Your task to perform on an android device: check data usage Image 0: 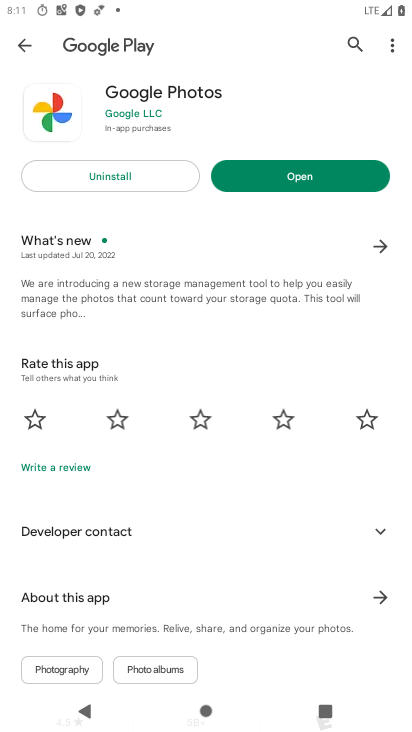
Step 0: drag from (247, 614) to (308, 206)
Your task to perform on an android device: check data usage Image 1: 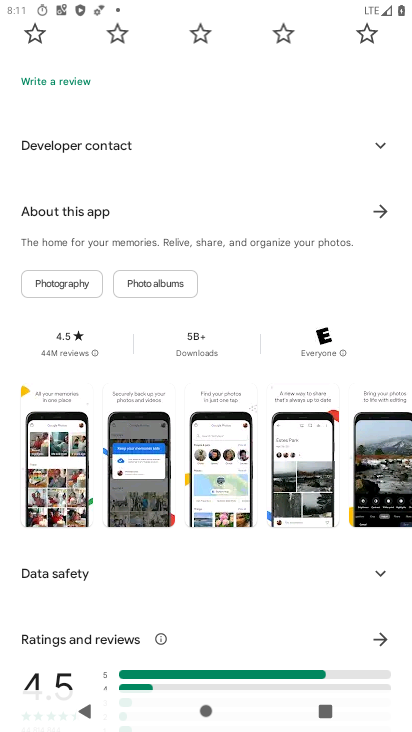
Step 1: press home button
Your task to perform on an android device: check data usage Image 2: 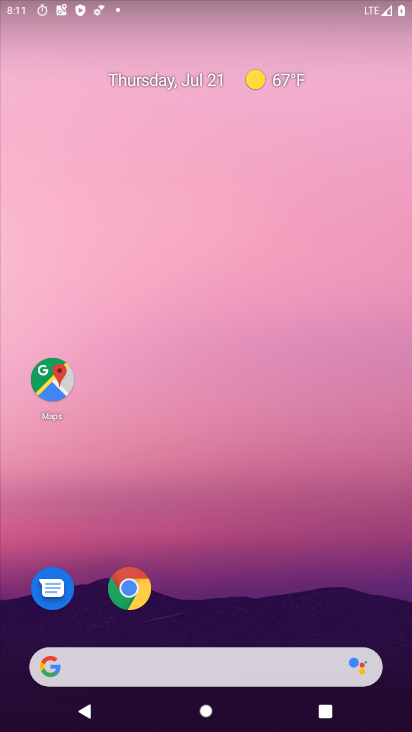
Step 2: drag from (209, 666) to (287, 222)
Your task to perform on an android device: check data usage Image 3: 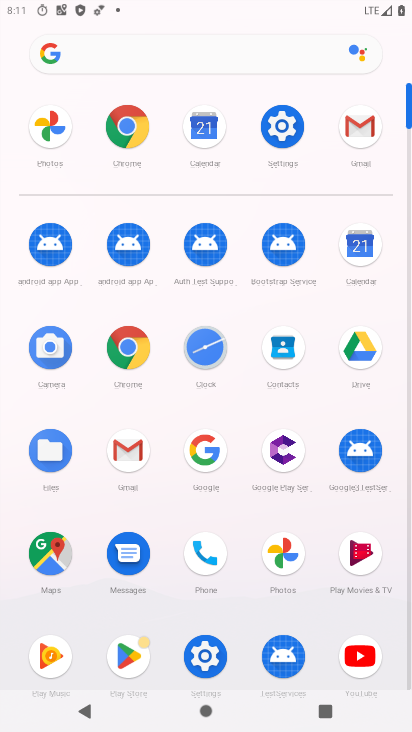
Step 3: click (282, 129)
Your task to perform on an android device: check data usage Image 4: 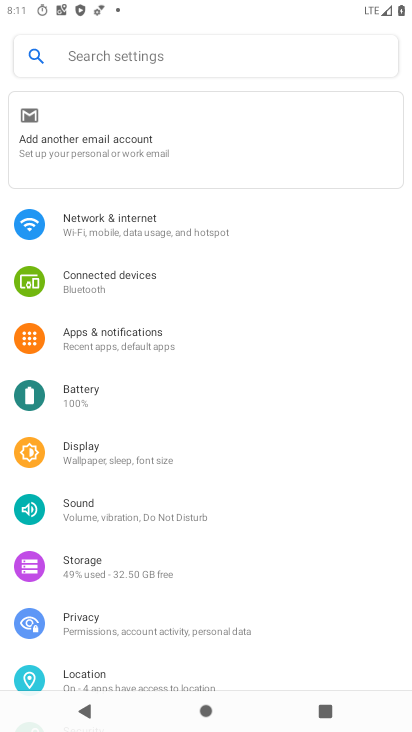
Step 4: click (103, 229)
Your task to perform on an android device: check data usage Image 5: 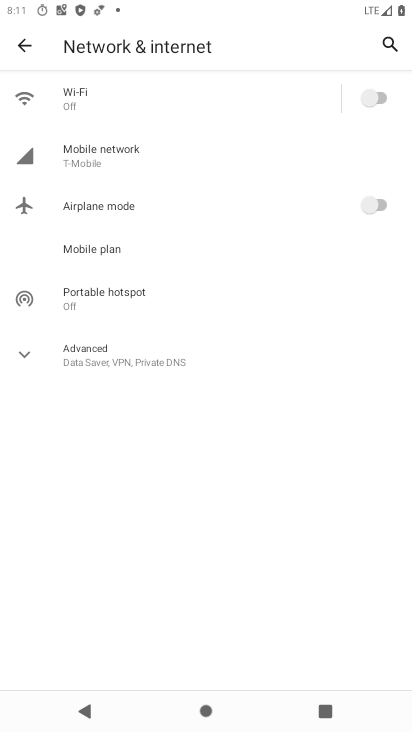
Step 5: click (94, 155)
Your task to perform on an android device: check data usage Image 6: 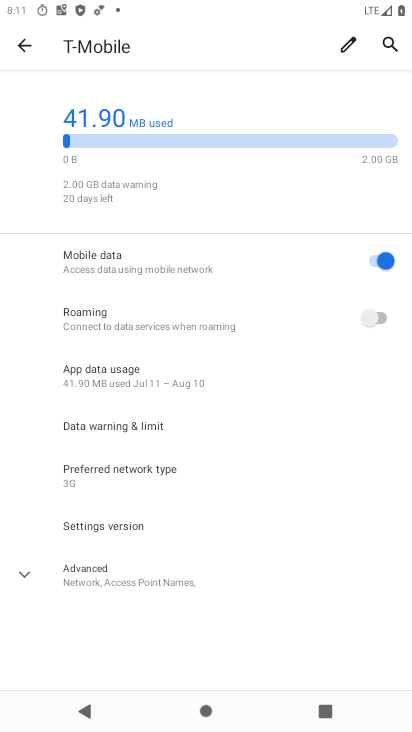
Step 6: task complete